Your task to perform on an android device: Open settings Image 0: 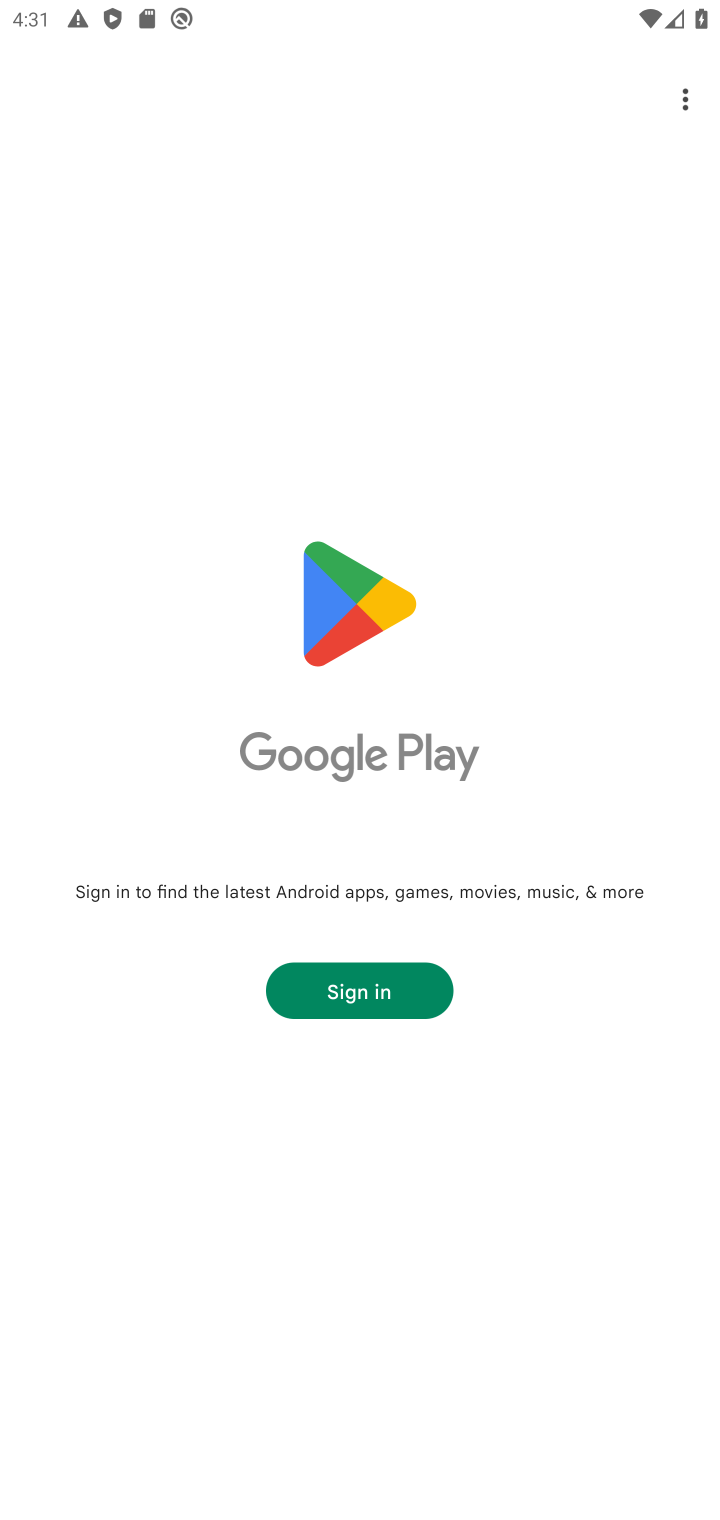
Step 0: press home button
Your task to perform on an android device: Open settings Image 1: 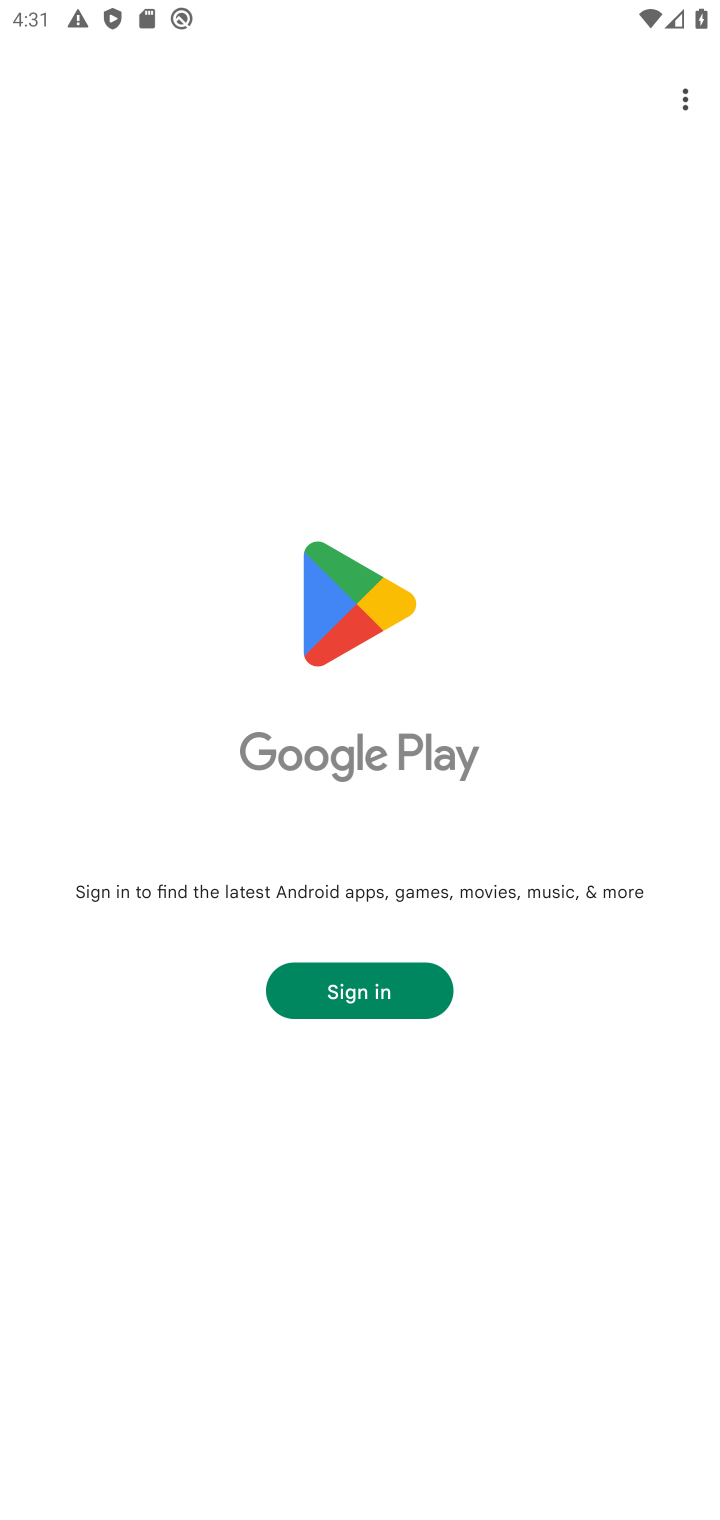
Step 1: task complete